Your task to perform on an android device: Show me recent news Image 0: 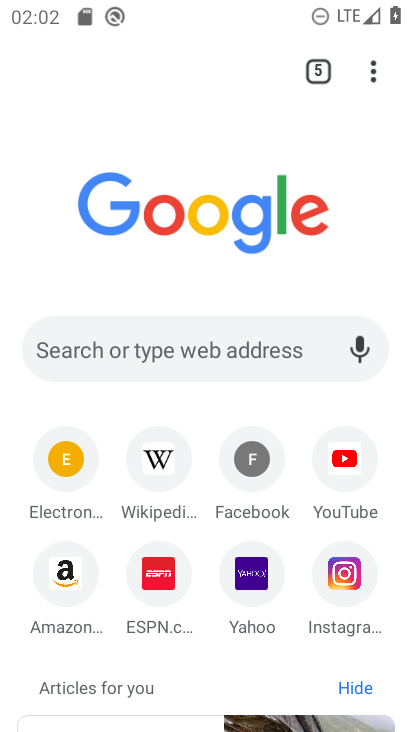
Step 0: click (215, 354)
Your task to perform on an android device: Show me recent news Image 1: 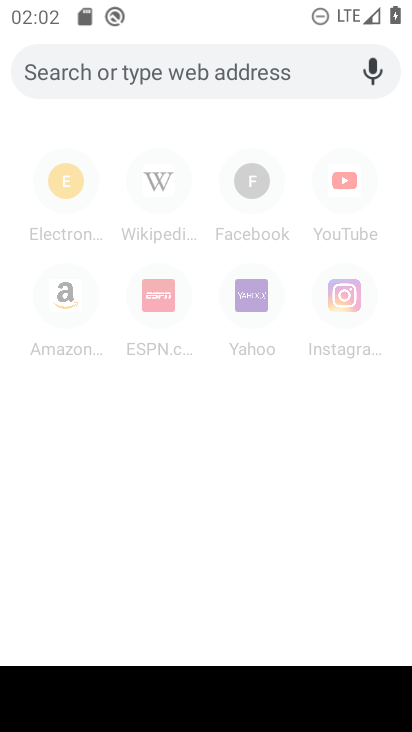
Step 1: type "recent news"
Your task to perform on an android device: Show me recent news Image 2: 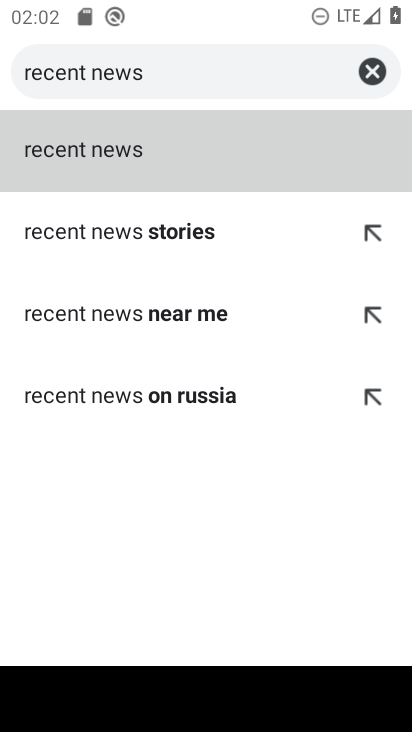
Step 2: click (167, 128)
Your task to perform on an android device: Show me recent news Image 3: 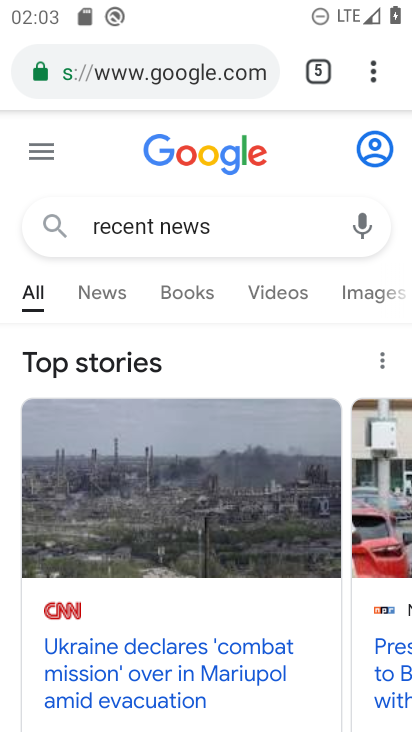
Step 3: task complete